Your task to perform on an android device: toggle notifications settings in the gmail app Image 0: 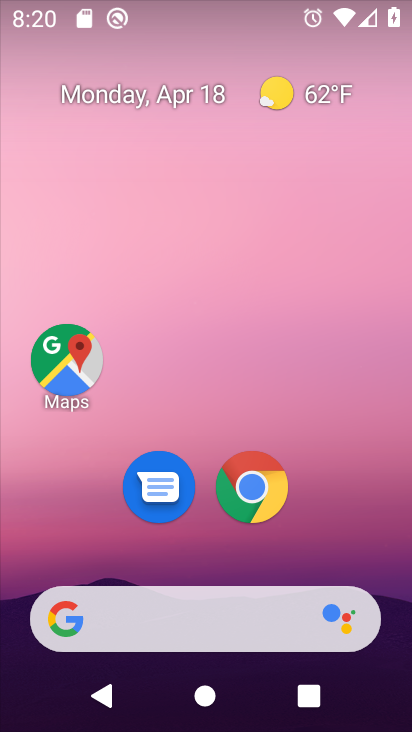
Step 0: drag from (211, 568) to (209, 53)
Your task to perform on an android device: toggle notifications settings in the gmail app Image 1: 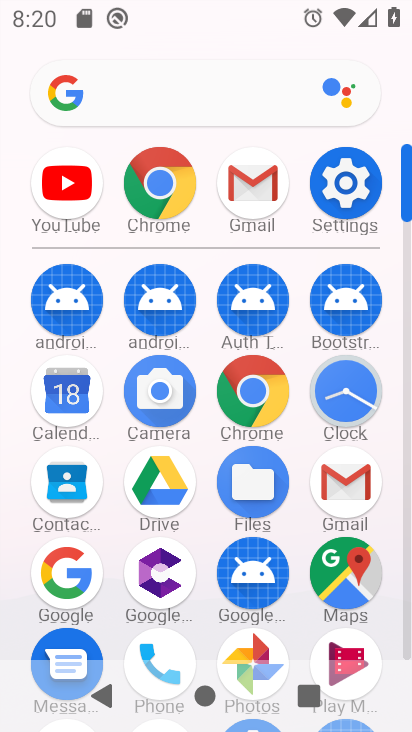
Step 1: click (341, 471)
Your task to perform on an android device: toggle notifications settings in the gmail app Image 2: 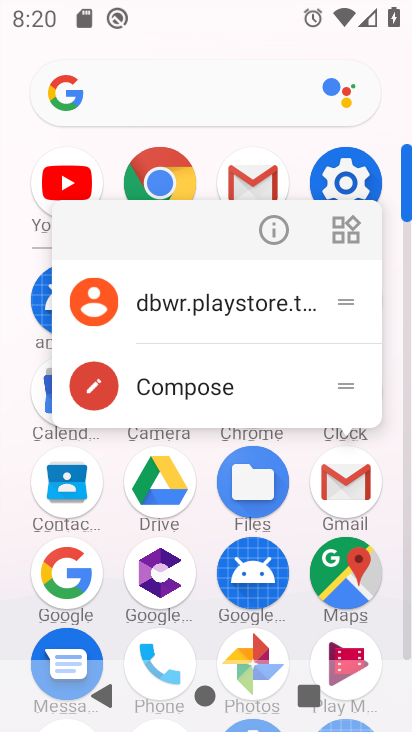
Step 2: click (341, 471)
Your task to perform on an android device: toggle notifications settings in the gmail app Image 3: 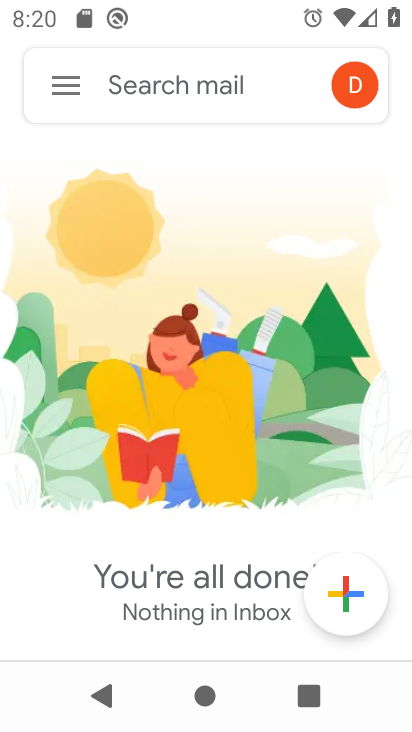
Step 3: click (64, 83)
Your task to perform on an android device: toggle notifications settings in the gmail app Image 4: 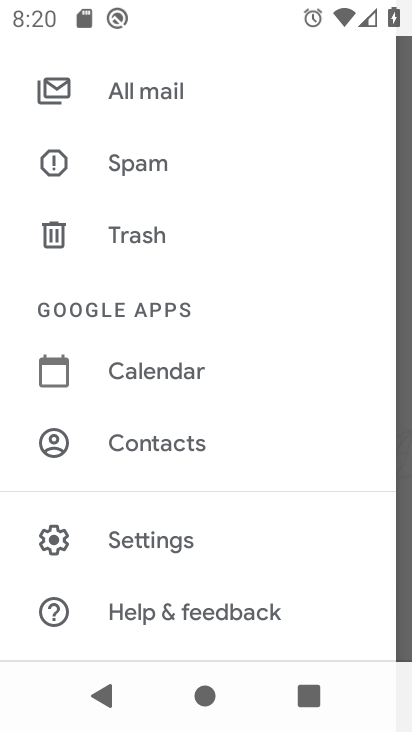
Step 4: click (204, 529)
Your task to perform on an android device: toggle notifications settings in the gmail app Image 5: 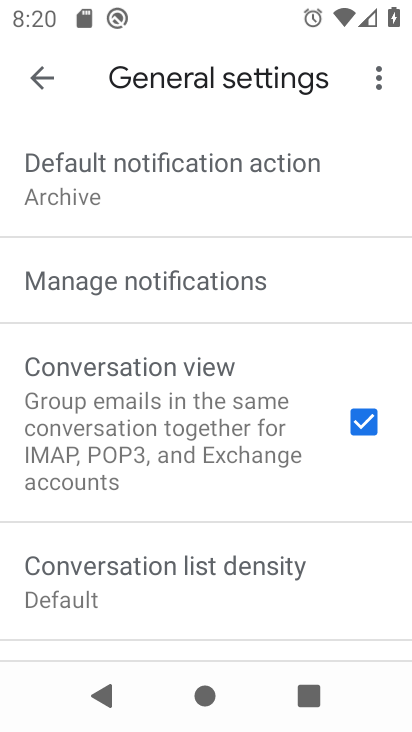
Step 5: click (246, 301)
Your task to perform on an android device: toggle notifications settings in the gmail app Image 6: 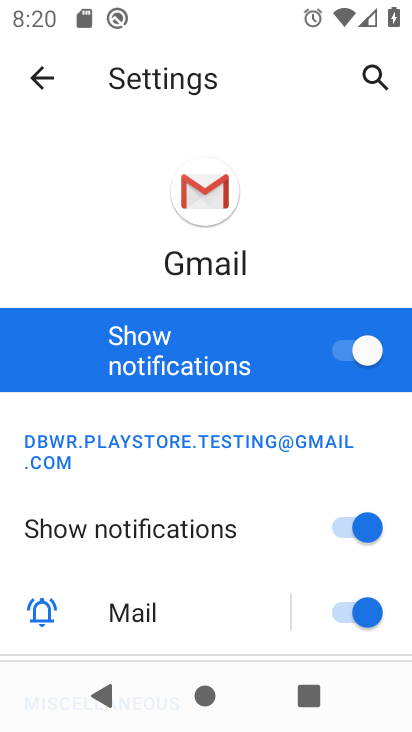
Step 6: click (351, 340)
Your task to perform on an android device: toggle notifications settings in the gmail app Image 7: 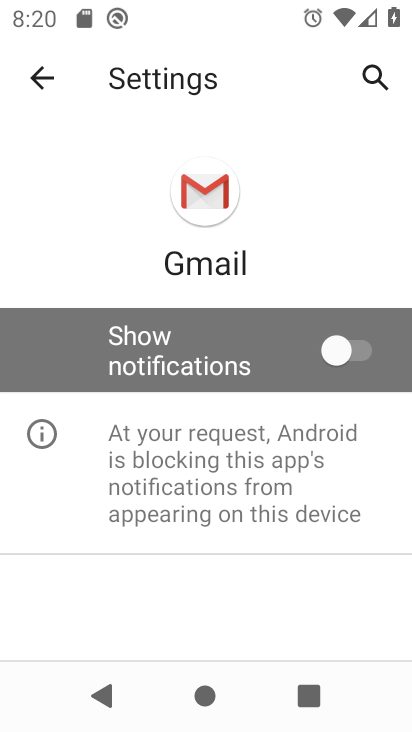
Step 7: task complete